Your task to perform on an android device: change your default location settings in chrome Image 0: 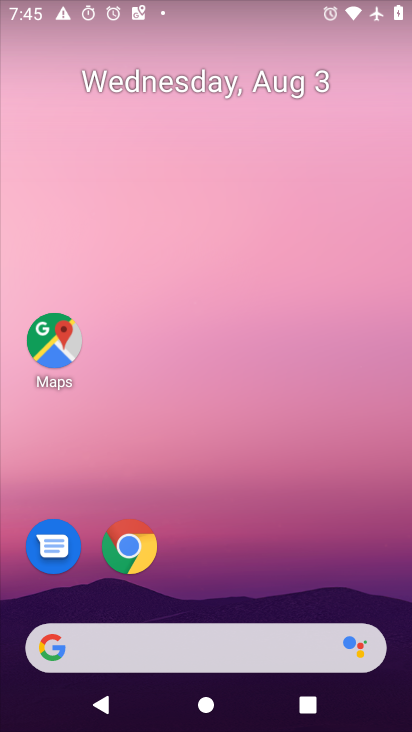
Step 0: drag from (208, 607) to (227, 136)
Your task to perform on an android device: change your default location settings in chrome Image 1: 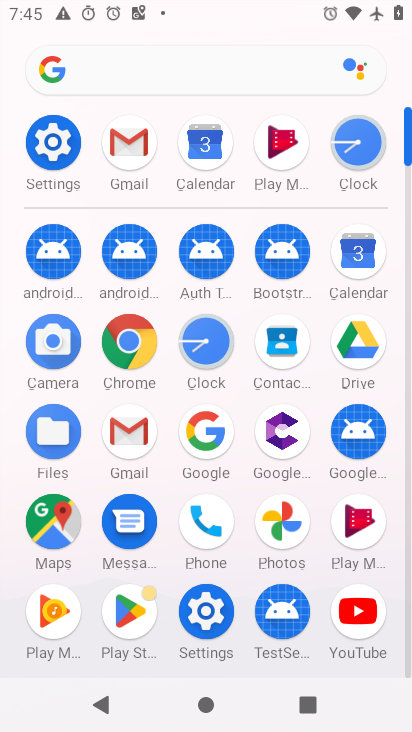
Step 1: click (131, 344)
Your task to perform on an android device: change your default location settings in chrome Image 2: 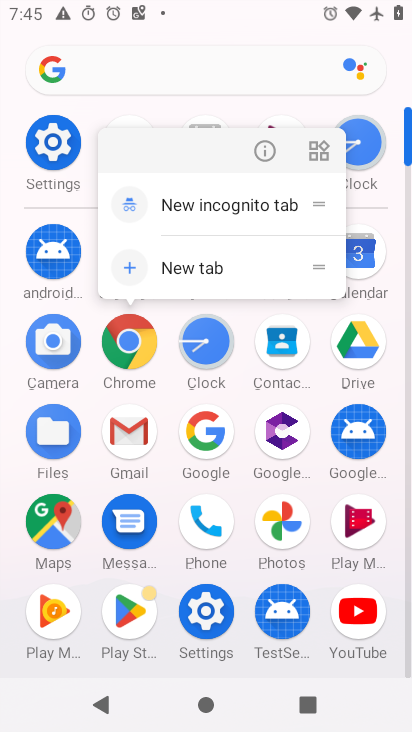
Step 2: click (126, 345)
Your task to perform on an android device: change your default location settings in chrome Image 3: 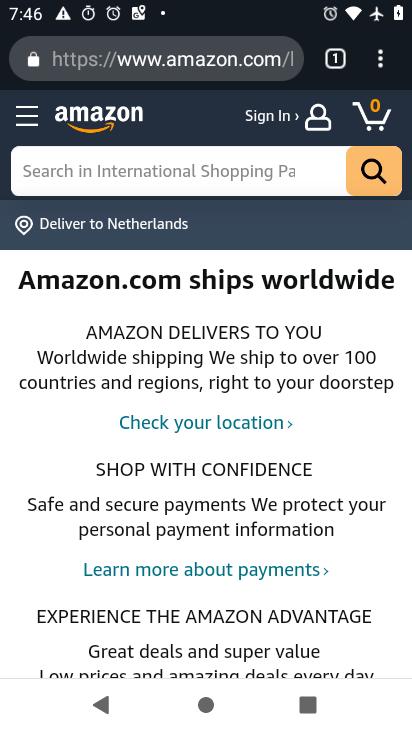
Step 3: drag from (380, 58) to (185, 567)
Your task to perform on an android device: change your default location settings in chrome Image 4: 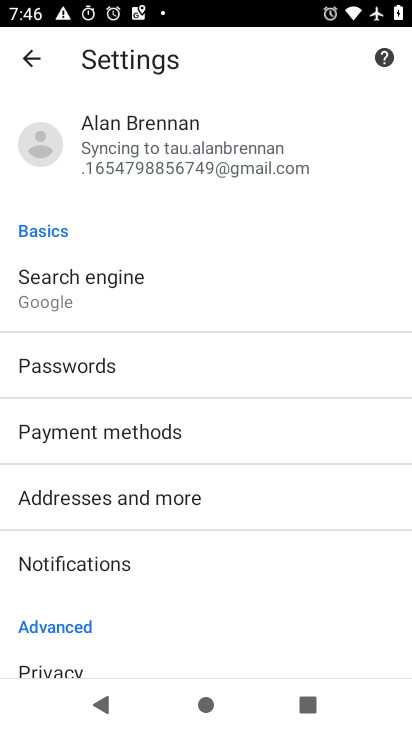
Step 4: drag from (222, 624) to (247, 310)
Your task to perform on an android device: change your default location settings in chrome Image 5: 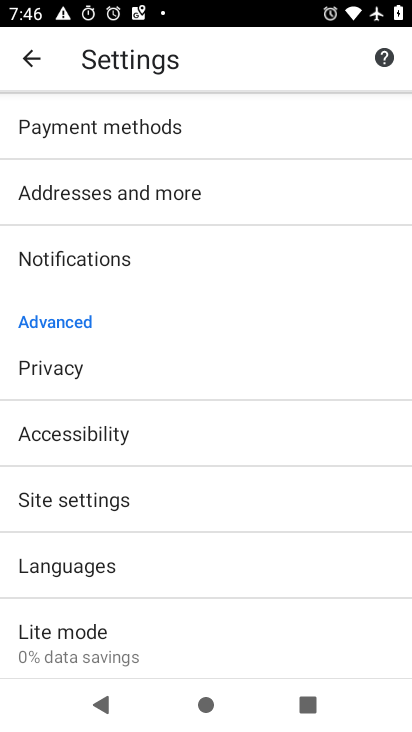
Step 5: click (33, 509)
Your task to perform on an android device: change your default location settings in chrome Image 6: 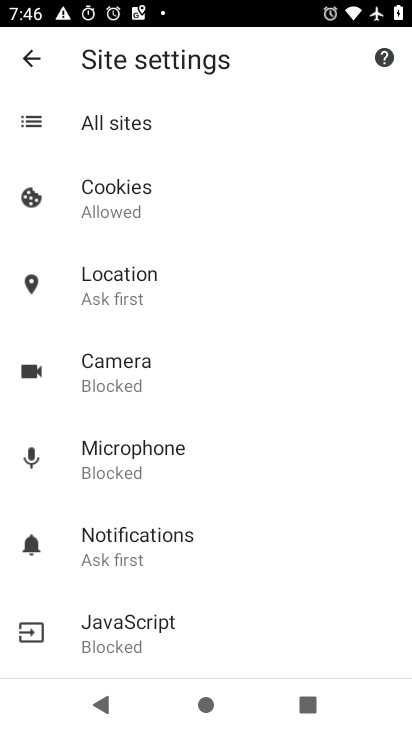
Step 6: click (101, 285)
Your task to perform on an android device: change your default location settings in chrome Image 7: 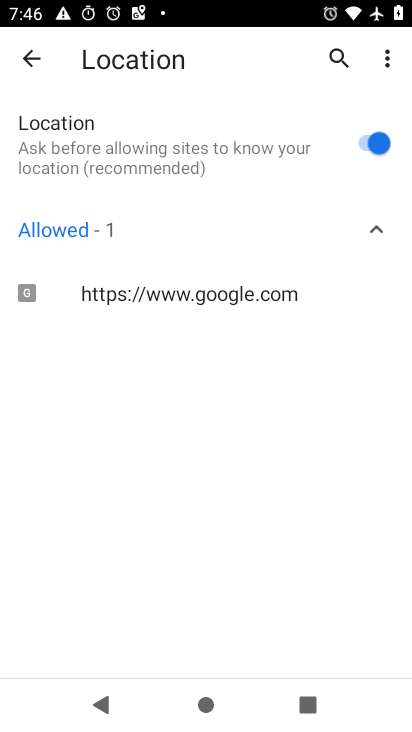
Step 7: click (389, 142)
Your task to perform on an android device: change your default location settings in chrome Image 8: 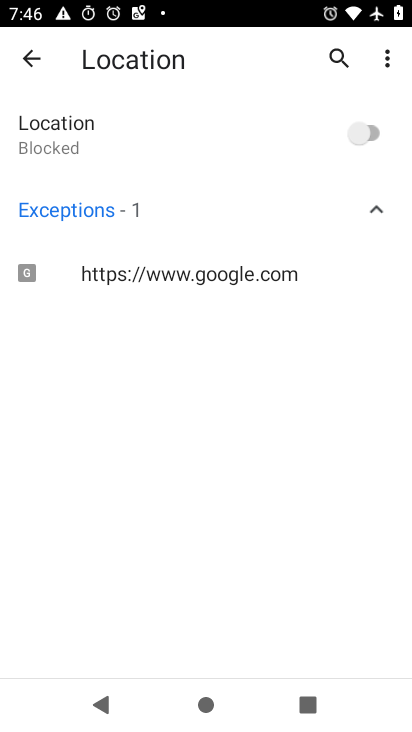
Step 8: task complete